Your task to perform on an android device: change keyboard looks Image 0: 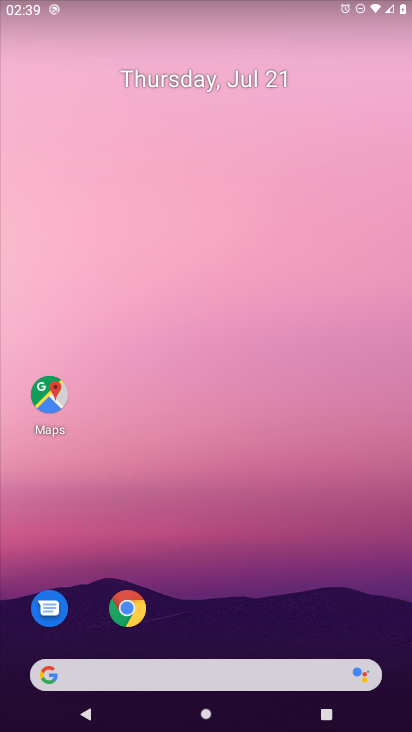
Step 0: press home button
Your task to perform on an android device: change keyboard looks Image 1: 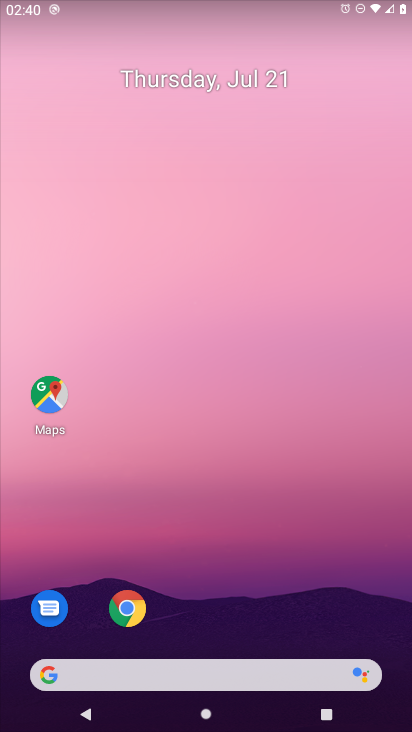
Step 1: drag from (225, 648) to (333, 131)
Your task to perform on an android device: change keyboard looks Image 2: 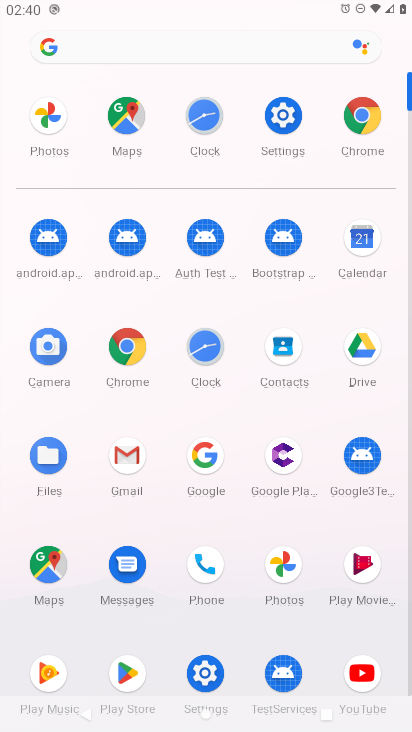
Step 2: click (280, 108)
Your task to perform on an android device: change keyboard looks Image 3: 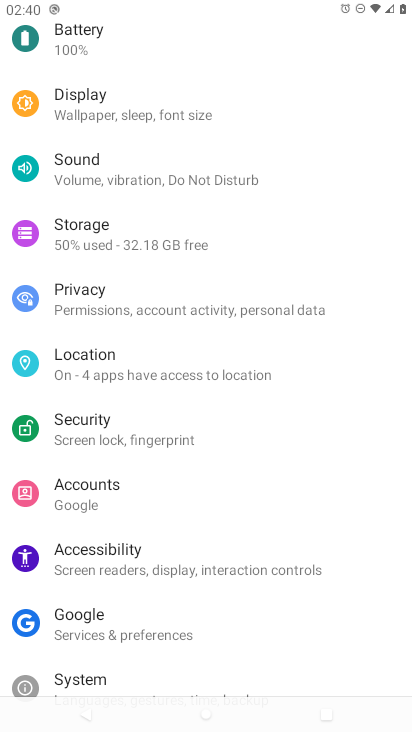
Step 3: click (72, 686)
Your task to perform on an android device: change keyboard looks Image 4: 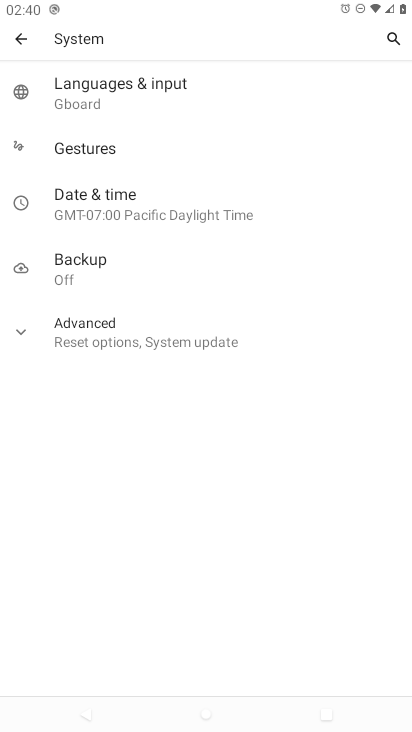
Step 4: click (98, 92)
Your task to perform on an android device: change keyboard looks Image 5: 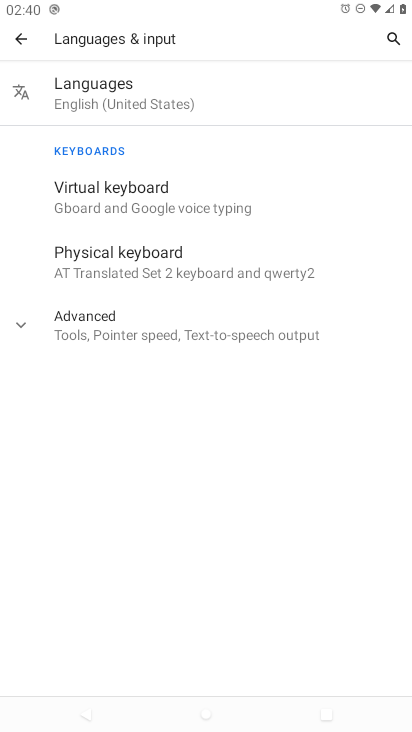
Step 5: click (112, 197)
Your task to perform on an android device: change keyboard looks Image 6: 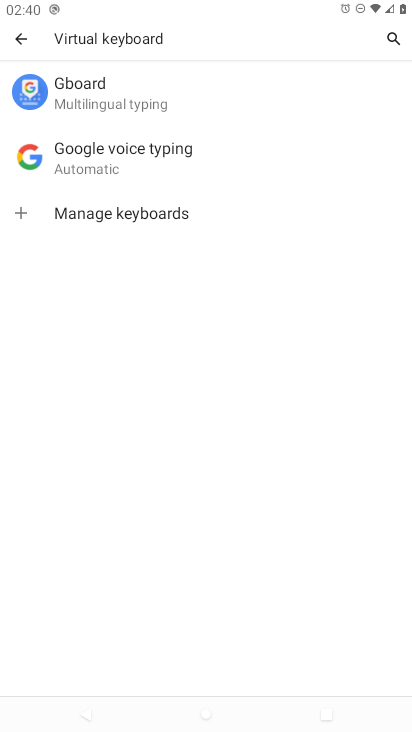
Step 6: click (81, 100)
Your task to perform on an android device: change keyboard looks Image 7: 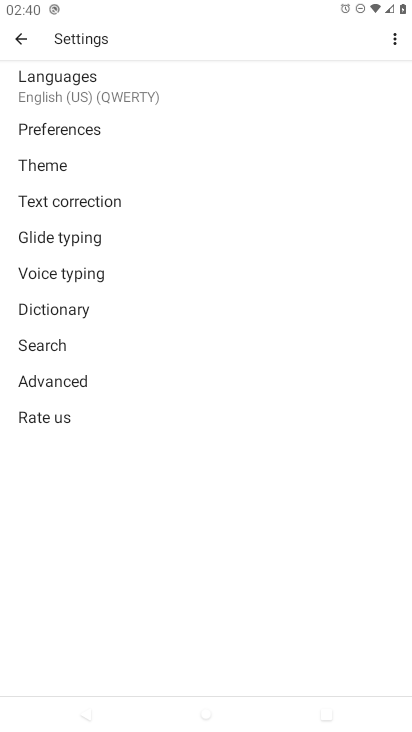
Step 7: click (49, 167)
Your task to perform on an android device: change keyboard looks Image 8: 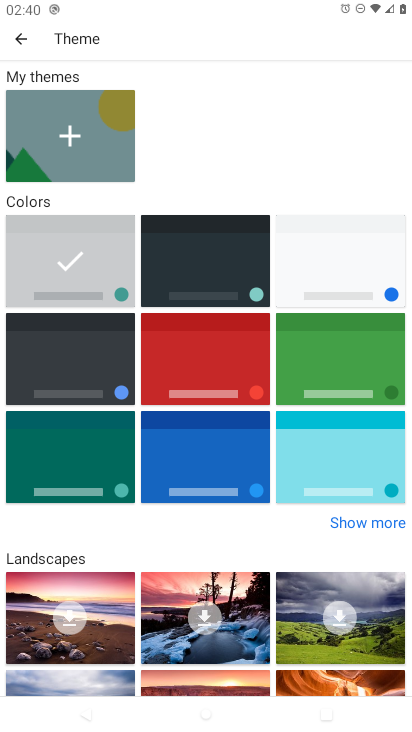
Step 8: click (199, 471)
Your task to perform on an android device: change keyboard looks Image 9: 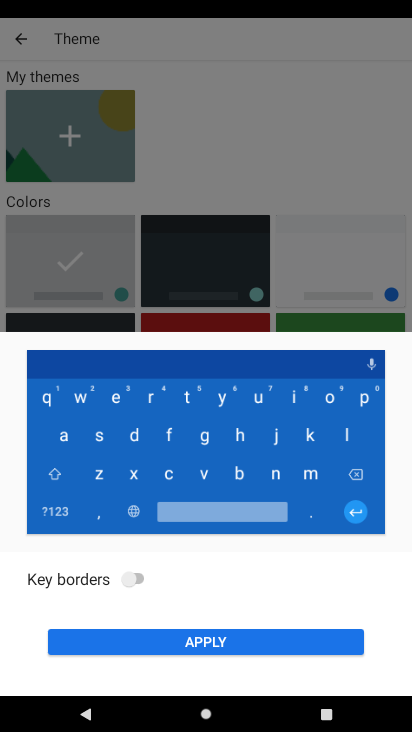
Step 9: click (141, 646)
Your task to perform on an android device: change keyboard looks Image 10: 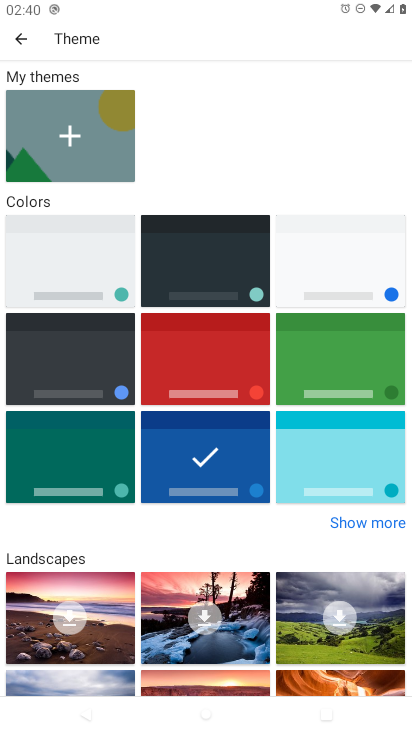
Step 10: task complete